Your task to perform on an android device: visit the assistant section in the google photos Image 0: 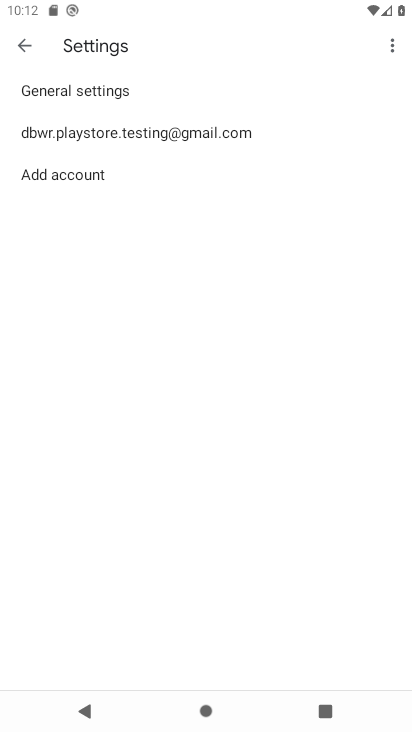
Step 0: press home button
Your task to perform on an android device: visit the assistant section in the google photos Image 1: 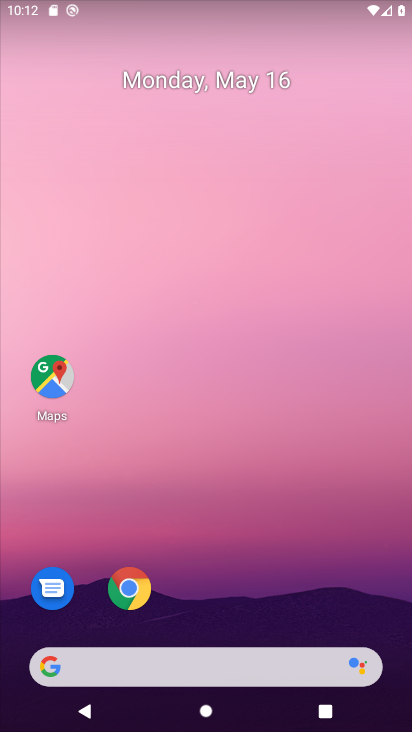
Step 1: drag from (223, 624) to (236, 87)
Your task to perform on an android device: visit the assistant section in the google photos Image 2: 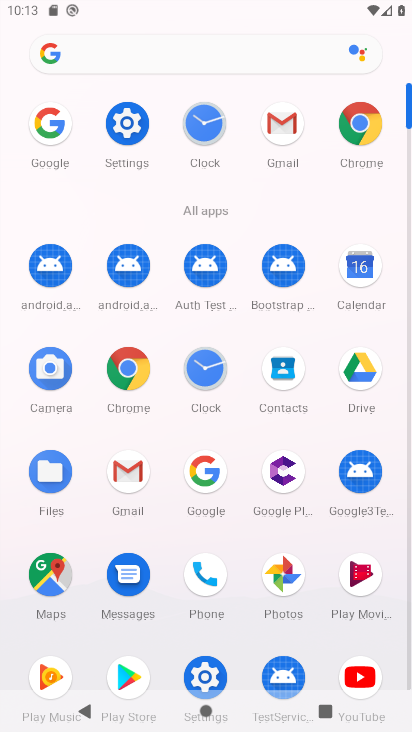
Step 2: click (282, 567)
Your task to perform on an android device: visit the assistant section in the google photos Image 3: 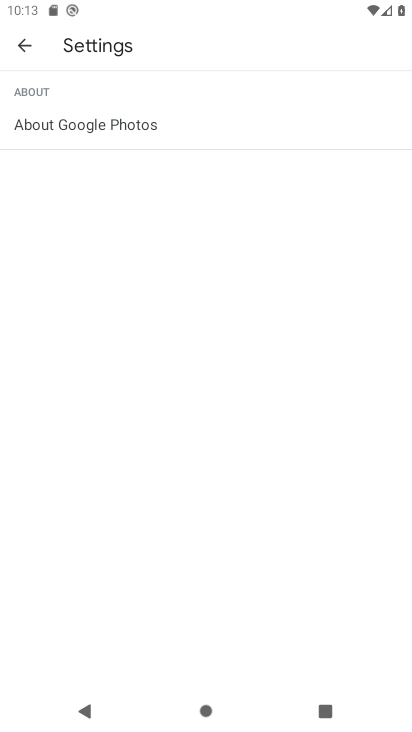
Step 3: click (30, 43)
Your task to perform on an android device: visit the assistant section in the google photos Image 4: 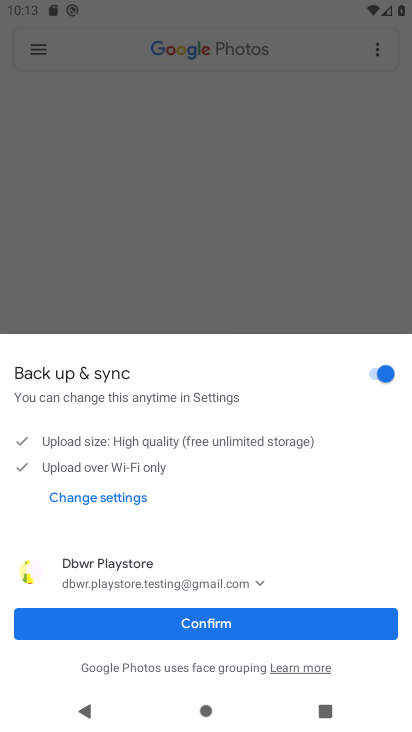
Step 4: click (255, 654)
Your task to perform on an android device: visit the assistant section in the google photos Image 5: 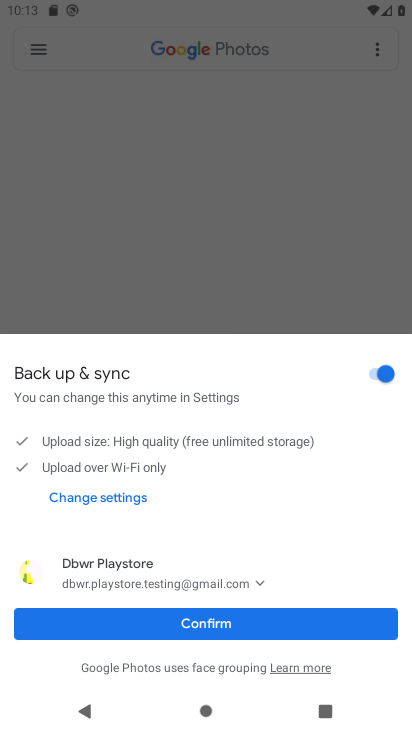
Step 5: click (219, 624)
Your task to perform on an android device: visit the assistant section in the google photos Image 6: 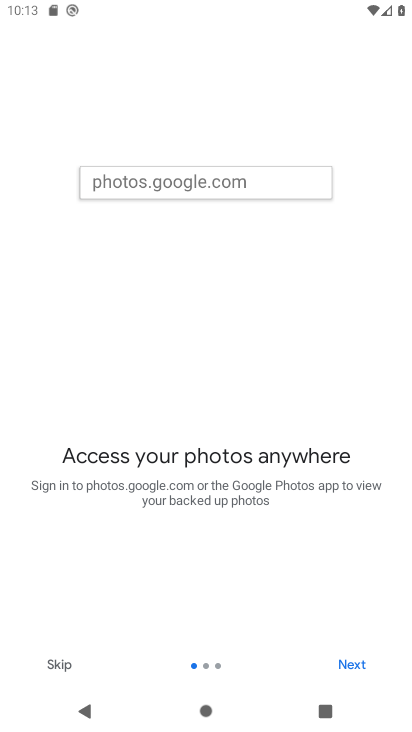
Step 6: click (59, 668)
Your task to perform on an android device: visit the assistant section in the google photos Image 7: 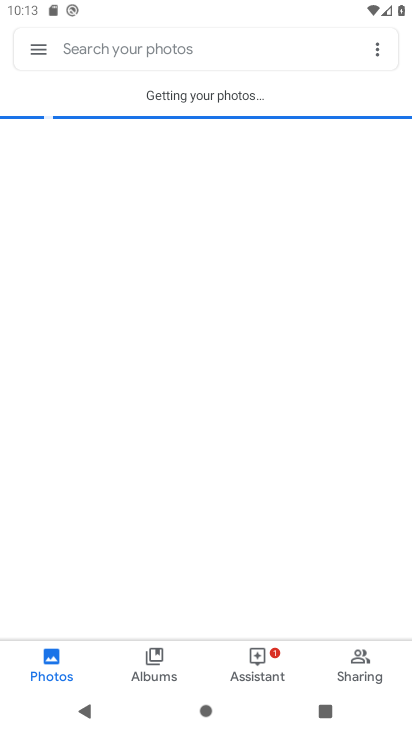
Step 7: click (259, 653)
Your task to perform on an android device: visit the assistant section in the google photos Image 8: 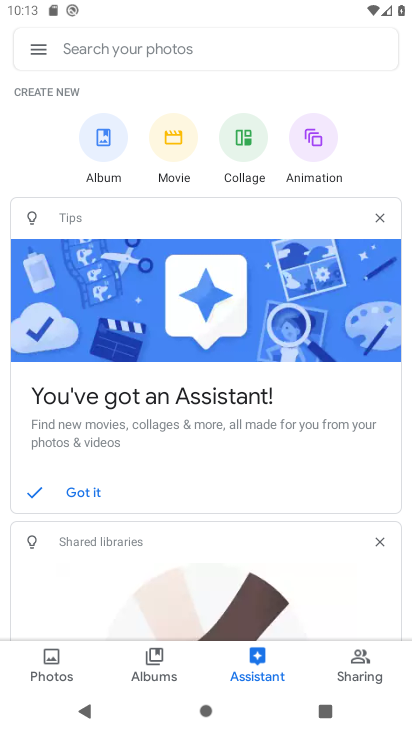
Step 8: task complete